Your task to perform on an android device: Do I have any events this weekend? Image 0: 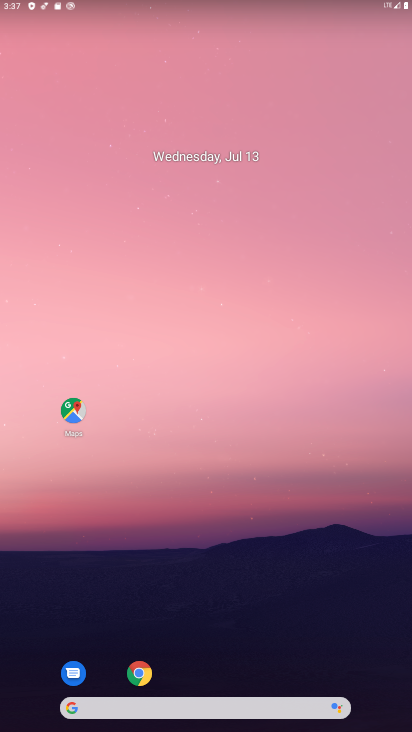
Step 0: drag from (228, 701) to (234, 106)
Your task to perform on an android device: Do I have any events this weekend? Image 1: 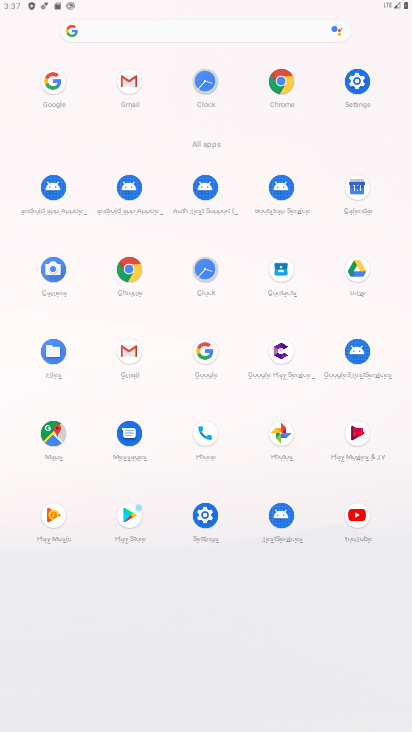
Step 1: click (359, 188)
Your task to perform on an android device: Do I have any events this weekend? Image 2: 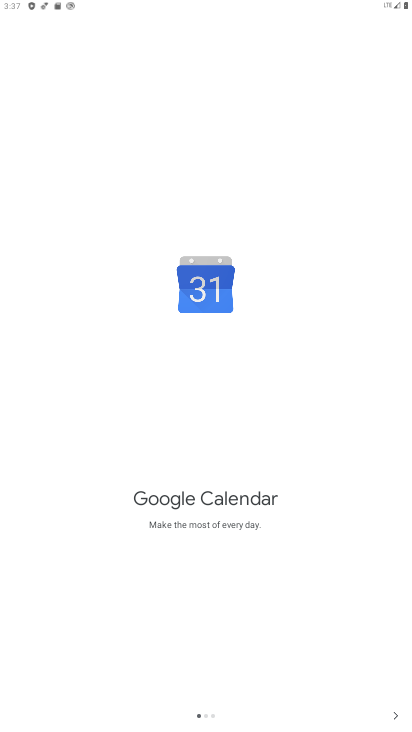
Step 2: click (396, 716)
Your task to perform on an android device: Do I have any events this weekend? Image 3: 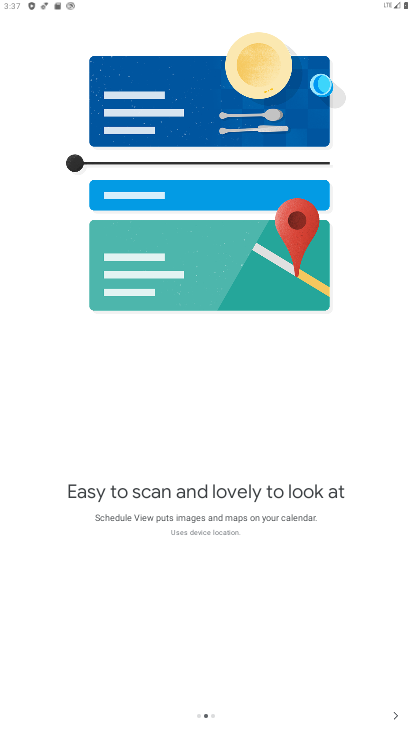
Step 3: click (396, 716)
Your task to perform on an android device: Do I have any events this weekend? Image 4: 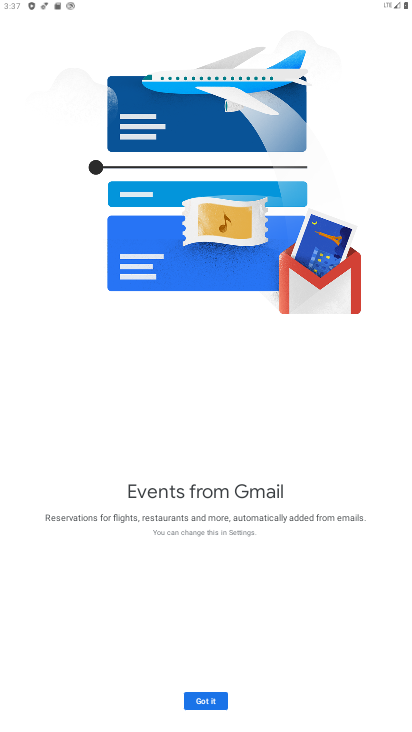
Step 4: click (214, 703)
Your task to perform on an android device: Do I have any events this weekend? Image 5: 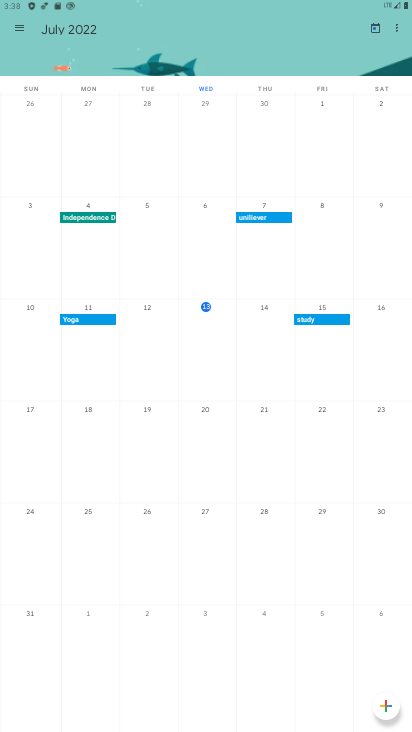
Step 5: click (385, 311)
Your task to perform on an android device: Do I have any events this weekend? Image 6: 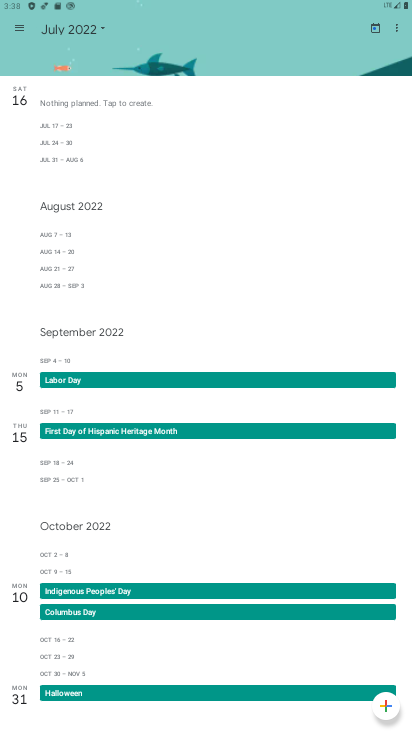
Step 6: click (21, 30)
Your task to perform on an android device: Do I have any events this weekend? Image 7: 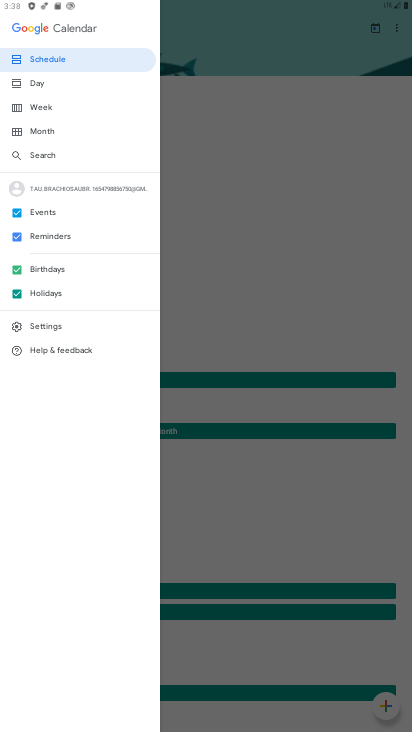
Step 7: click (59, 59)
Your task to perform on an android device: Do I have any events this weekend? Image 8: 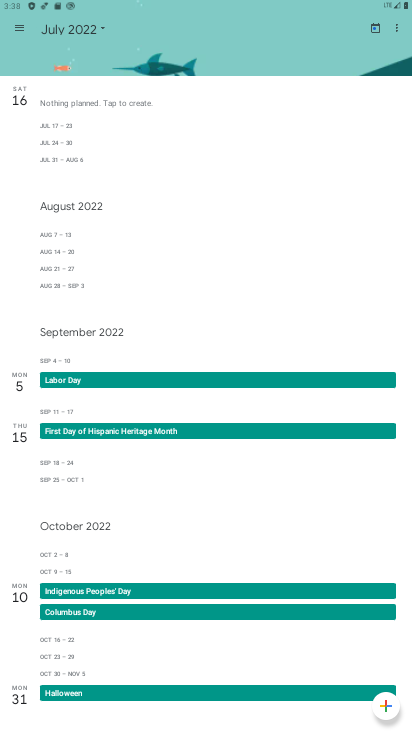
Step 8: task complete